Your task to perform on an android device: Go to ESPN.com Image 0: 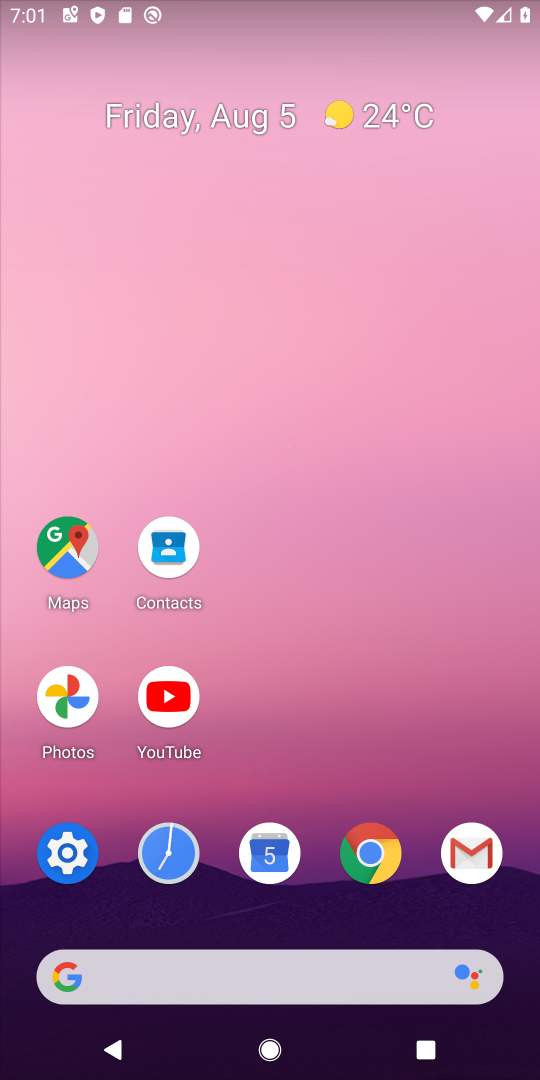
Step 0: click (366, 854)
Your task to perform on an android device: Go to ESPN.com Image 1: 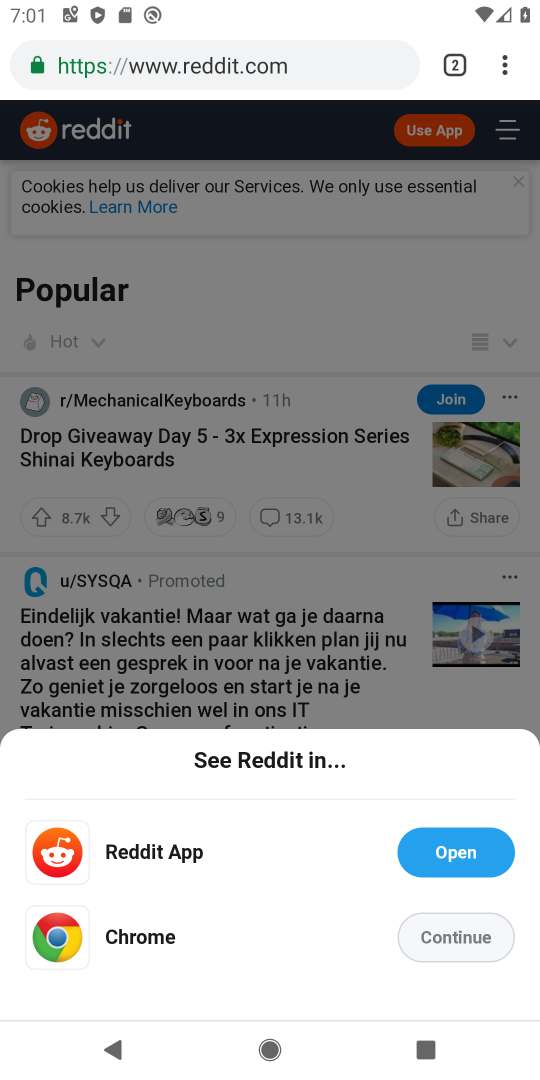
Step 1: click (432, 934)
Your task to perform on an android device: Go to ESPN.com Image 2: 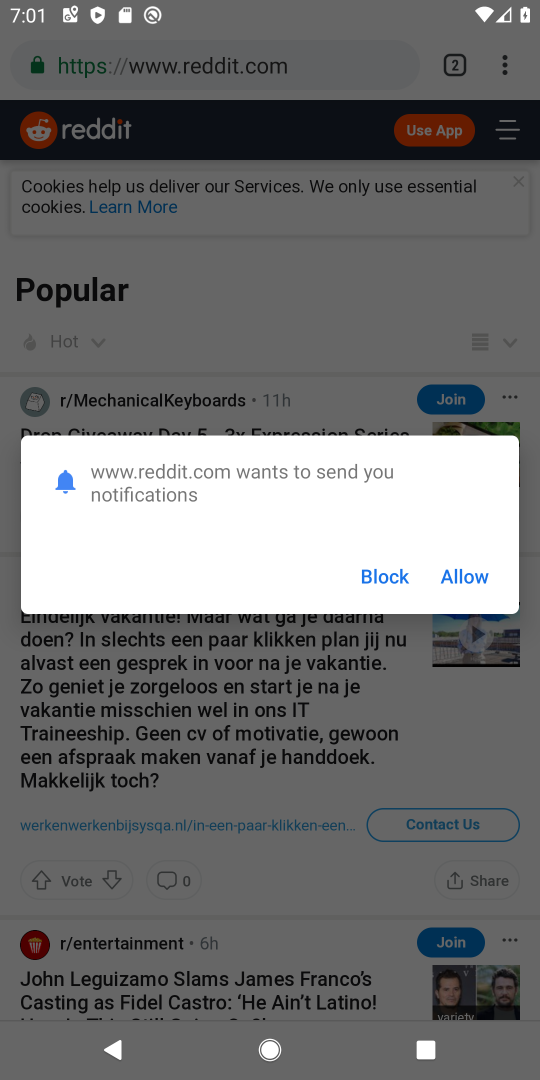
Step 2: click (469, 577)
Your task to perform on an android device: Go to ESPN.com Image 3: 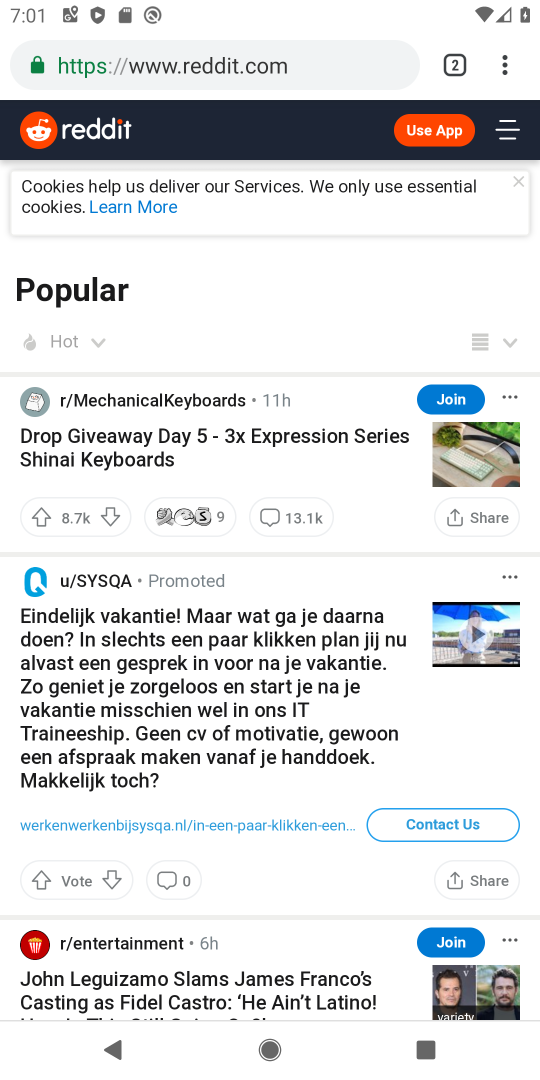
Step 3: click (511, 63)
Your task to perform on an android device: Go to ESPN.com Image 4: 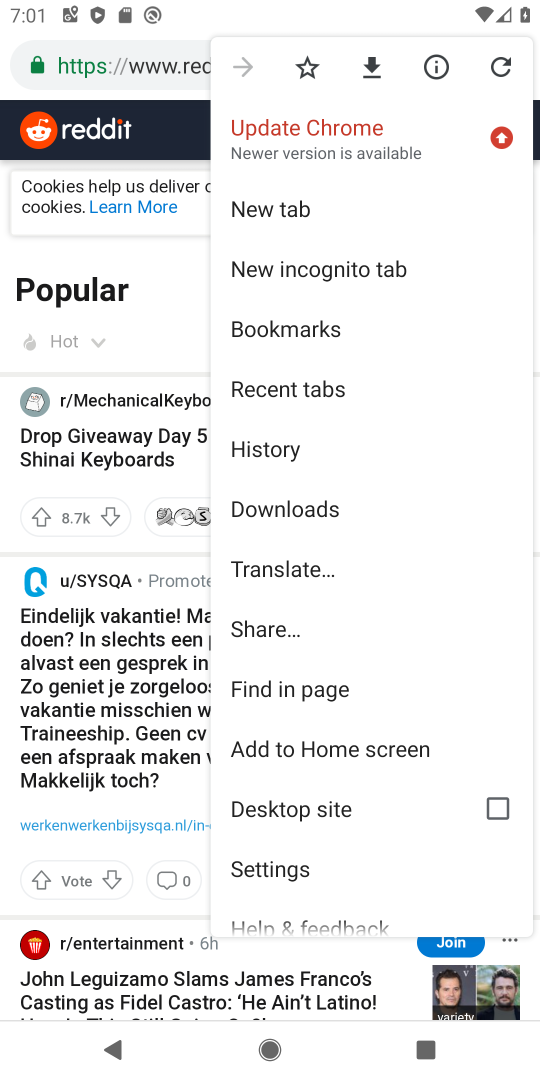
Step 4: click (292, 201)
Your task to perform on an android device: Go to ESPN.com Image 5: 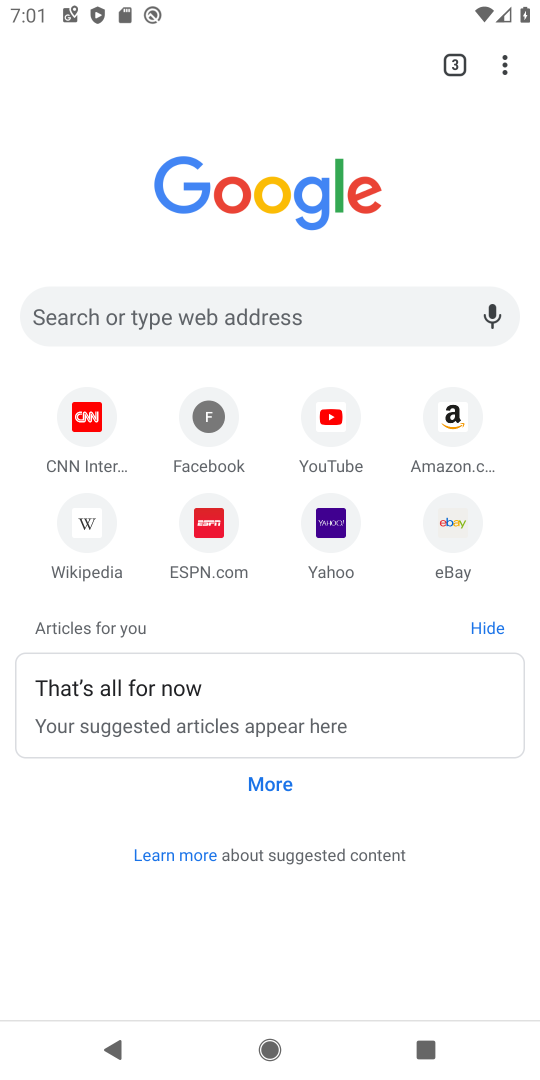
Step 5: click (212, 517)
Your task to perform on an android device: Go to ESPN.com Image 6: 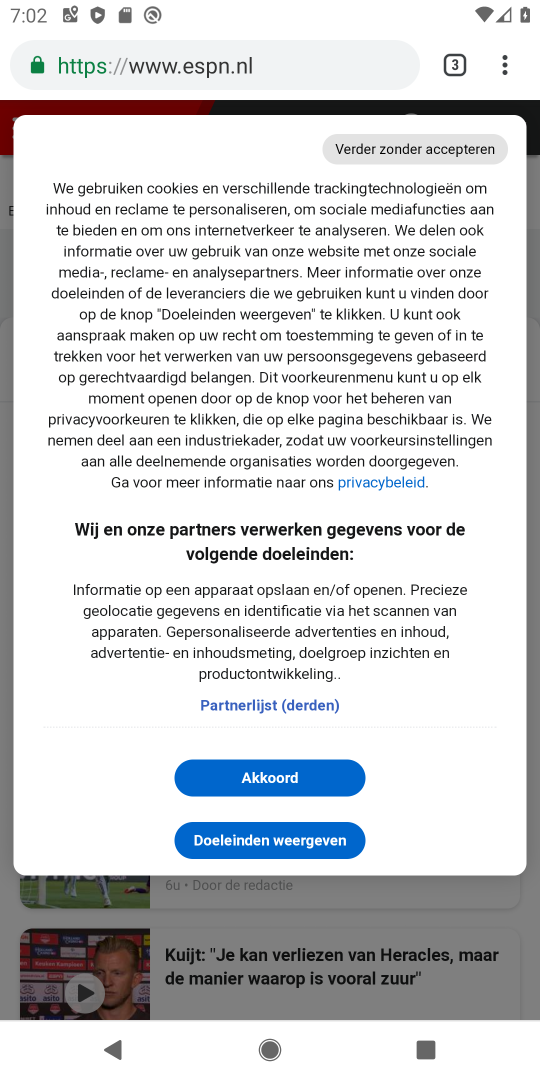
Step 6: click (289, 779)
Your task to perform on an android device: Go to ESPN.com Image 7: 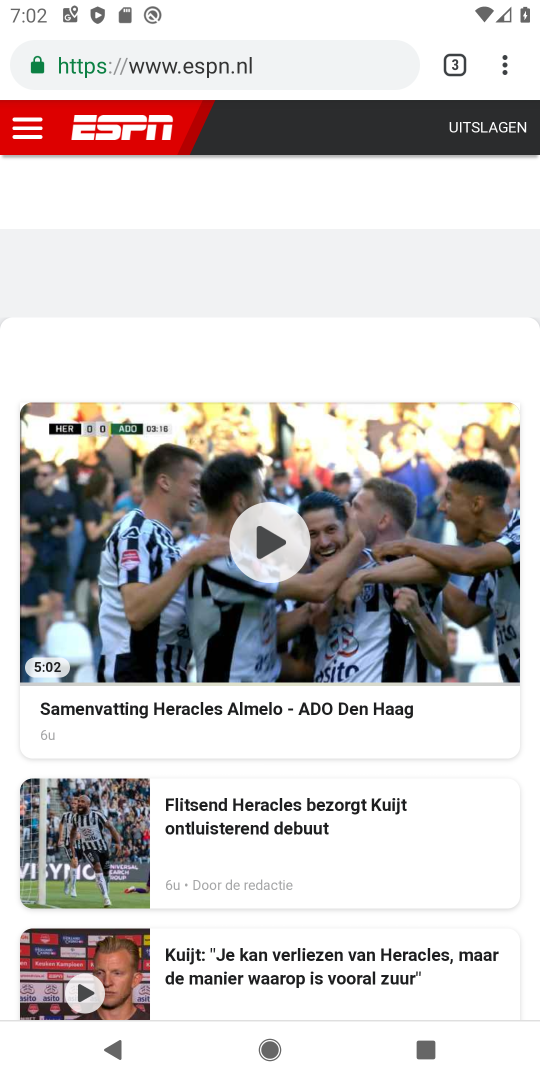
Step 7: task complete